Your task to perform on an android device: check android version Image 0: 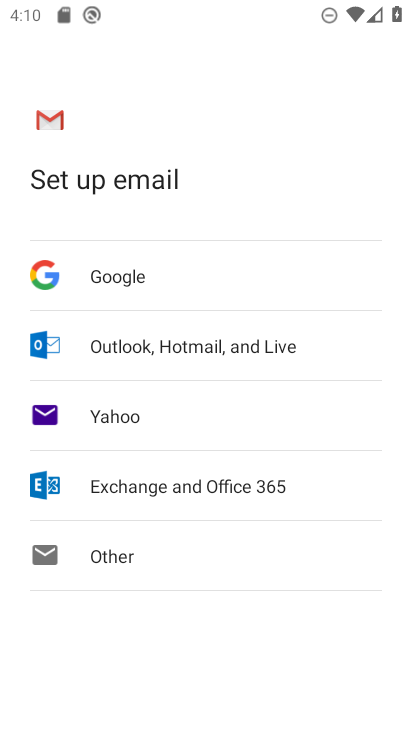
Step 0: press home button
Your task to perform on an android device: check android version Image 1: 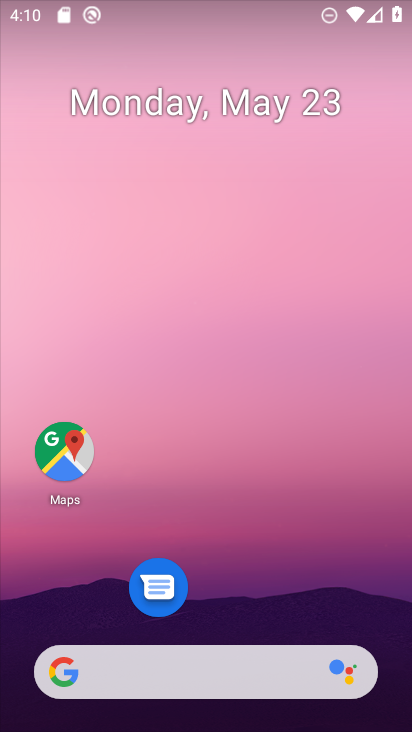
Step 1: drag from (247, 609) to (231, 175)
Your task to perform on an android device: check android version Image 2: 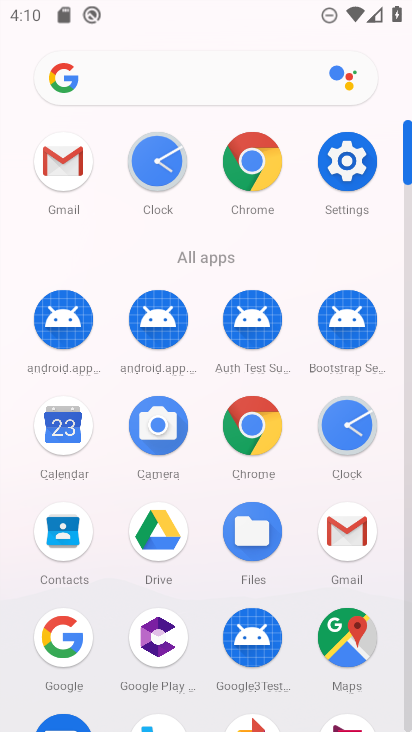
Step 2: click (355, 158)
Your task to perform on an android device: check android version Image 3: 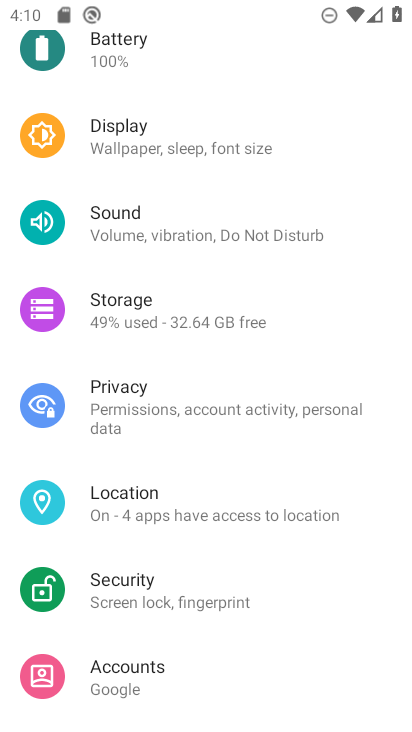
Step 3: drag from (207, 631) to (221, 215)
Your task to perform on an android device: check android version Image 4: 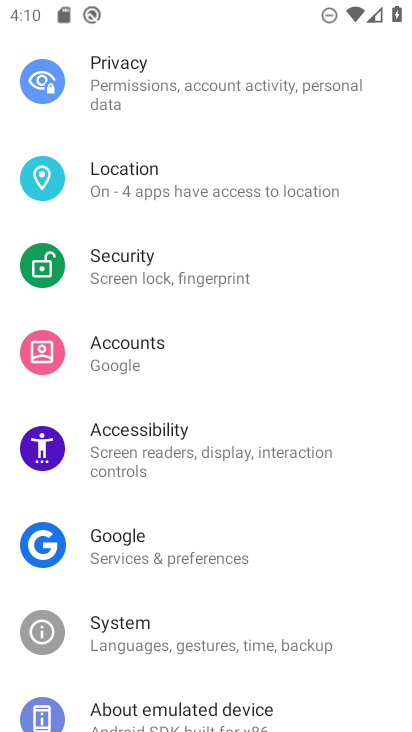
Step 4: drag from (182, 615) to (192, 234)
Your task to perform on an android device: check android version Image 5: 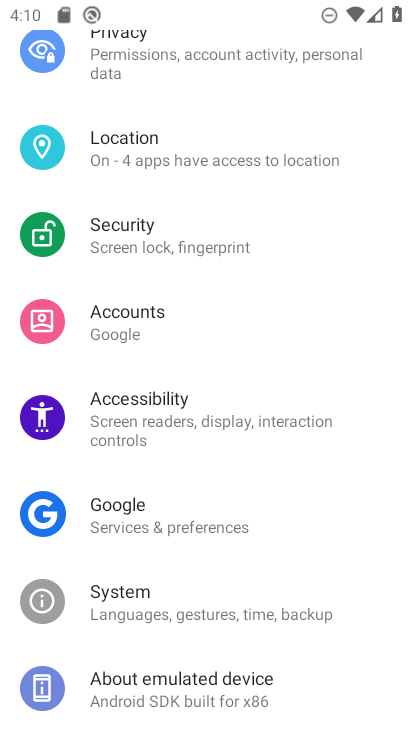
Step 5: click (208, 691)
Your task to perform on an android device: check android version Image 6: 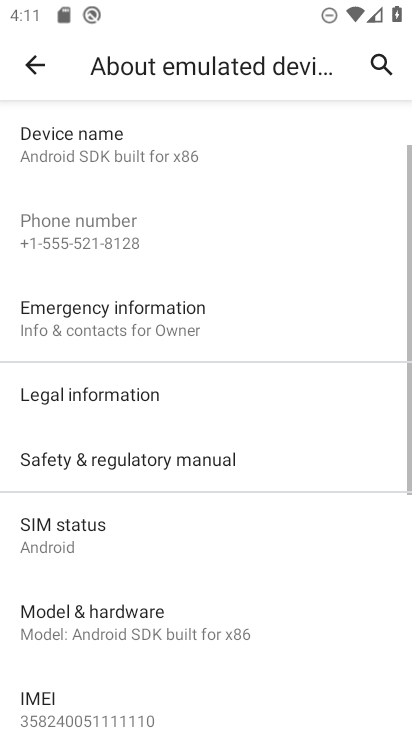
Step 6: drag from (162, 543) to (203, 189)
Your task to perform on an android device: check android version Image 7: 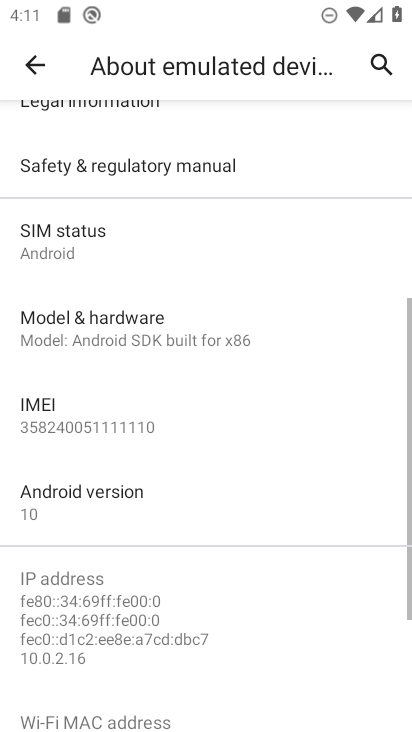
Step 7: click (136, 501)
Your task to perform on an android device: check android version Image 8: 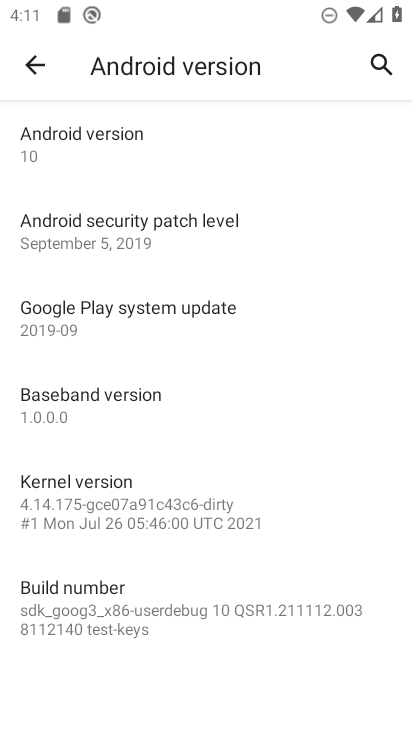
Step 8: click (156, 146)
Your task to perform on an android device: check android version Image 9: 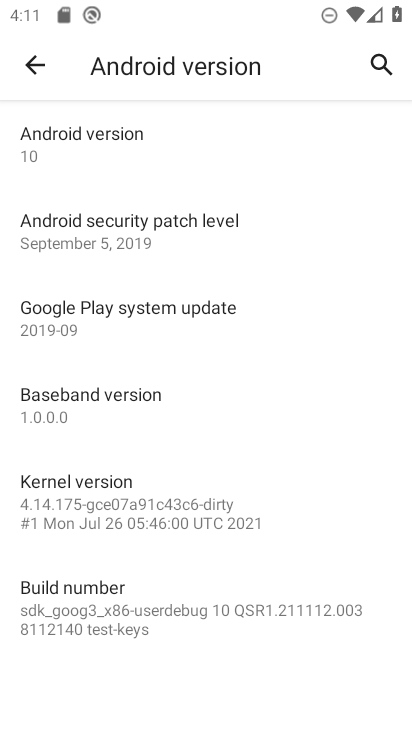
Step 9: click (253, 126)
Your task to perform on an android device: check android version Image 10: 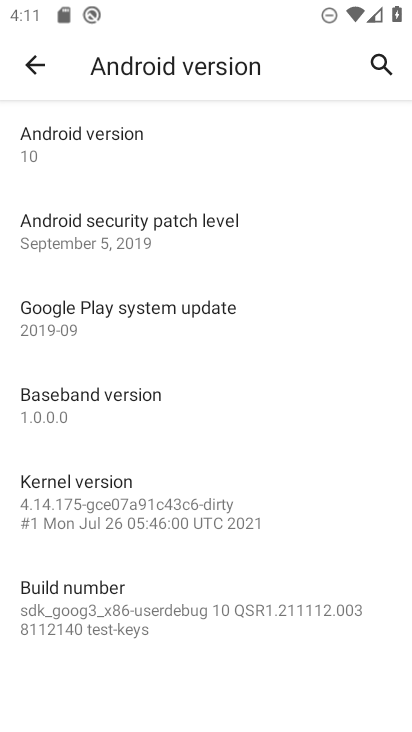
Step 10: task complete